Your task to perform on an android device: Play the latest video from the New York Times Image 0: 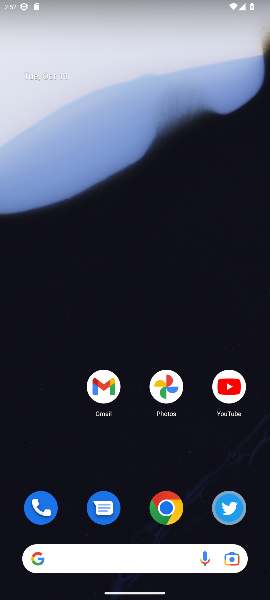
Step 0: click (165, 507)
Your task to perform on an android device: Play the latest video from the New York Times Image 1: 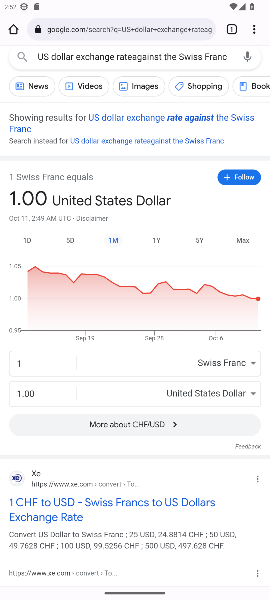
Step 1: click (84, 26)
Your task to perform on an android device: Play the latest video from the New York Times Image 2: 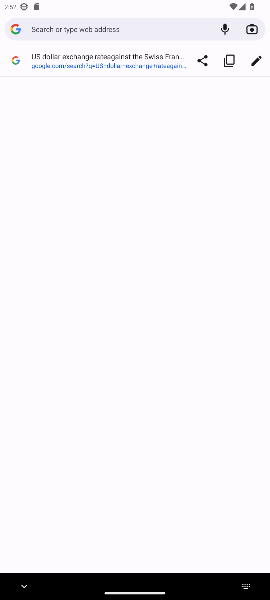
Step 2: type "latest video from the New York Times"
Your task to perform on an android device: Play the latest video from the New York Times Image 3: 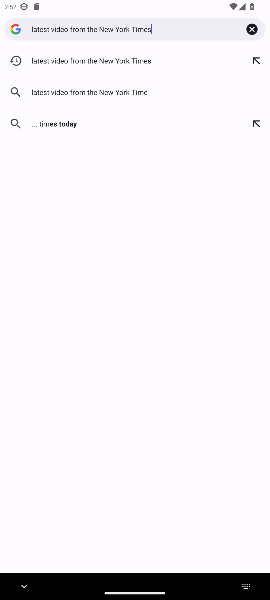
Step 3: type ""
Your task to perform on an android device: Play the latest video from the New York Times Image 4: 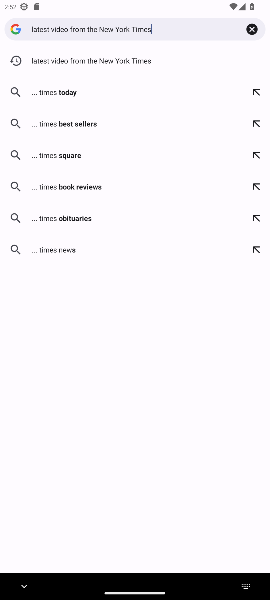
Step 4: press enter
Your task to perform on an android device: Play the latest video from the New York Times Image 5: 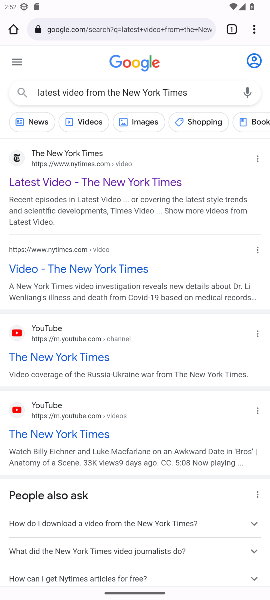
Step 5: click (103, 179)
Your task to perform on an android device: Play the latest video from the New York Times Image 6: 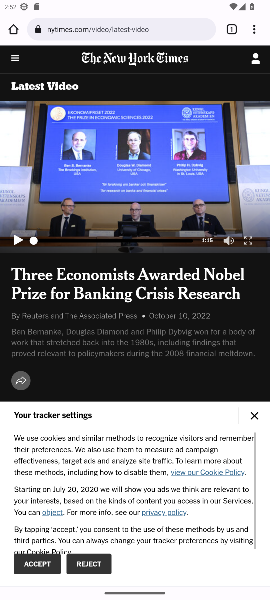
Step 6: click (16, 238)
Your task to perform on an android device: Play the latest video from the New York Times Image 7: 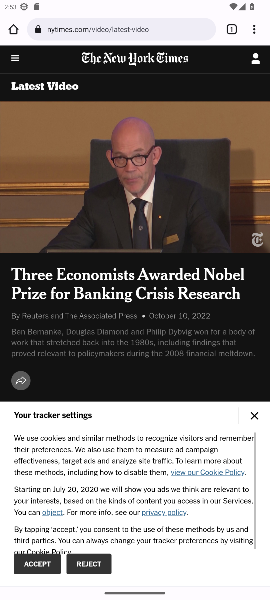
Step 7: task complete